Your task to perform on an android device: refresh tabs in the chrome app Image 0: 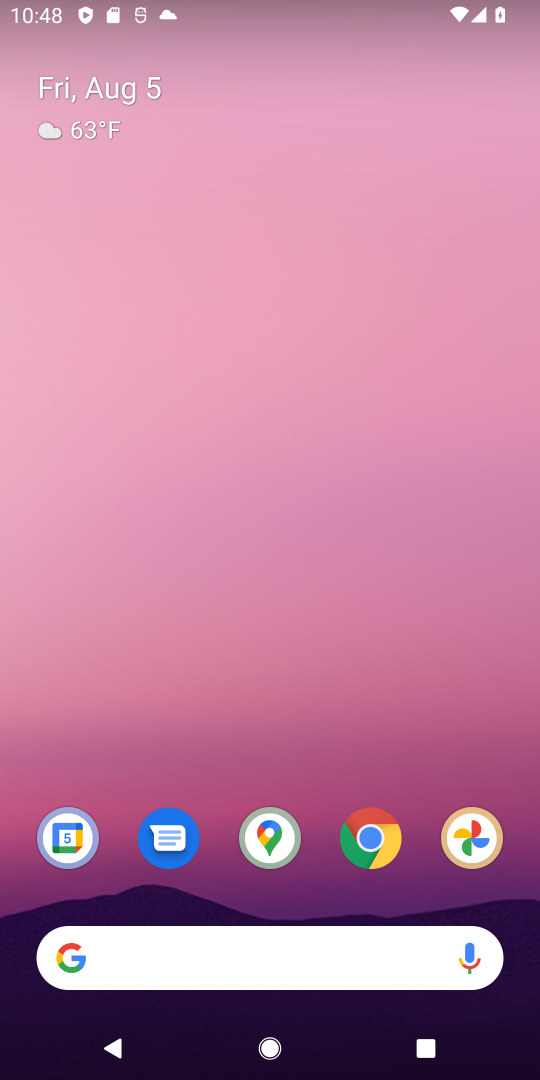
Step 0: drag from (271, 482) to (265, 184)
Your task to perform on an android device: refresh tabs in the chrome app Image 1: 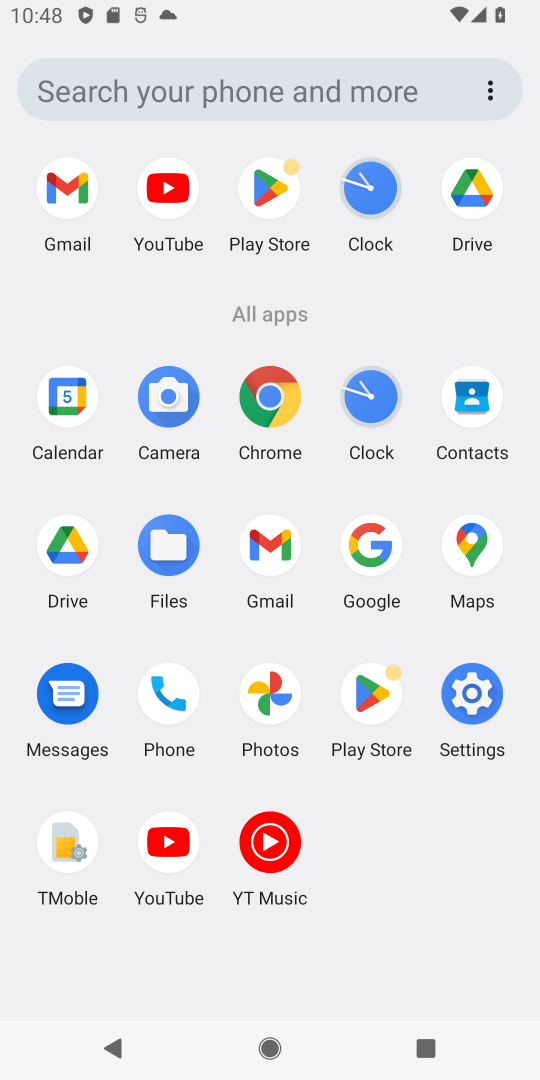
Step 1: click (269, 410)
Your task to perform on an android device: refresh tabs in the chrome app Image 2: 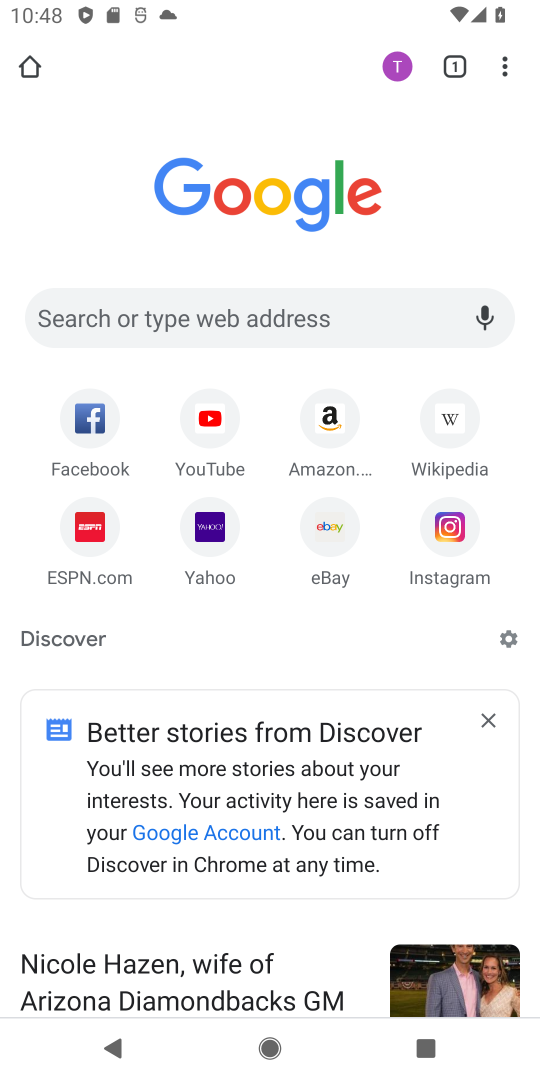
Step 2: click (494, 65)
Your task to perform on an android device: refresh tabs in the chrome app Image 3: 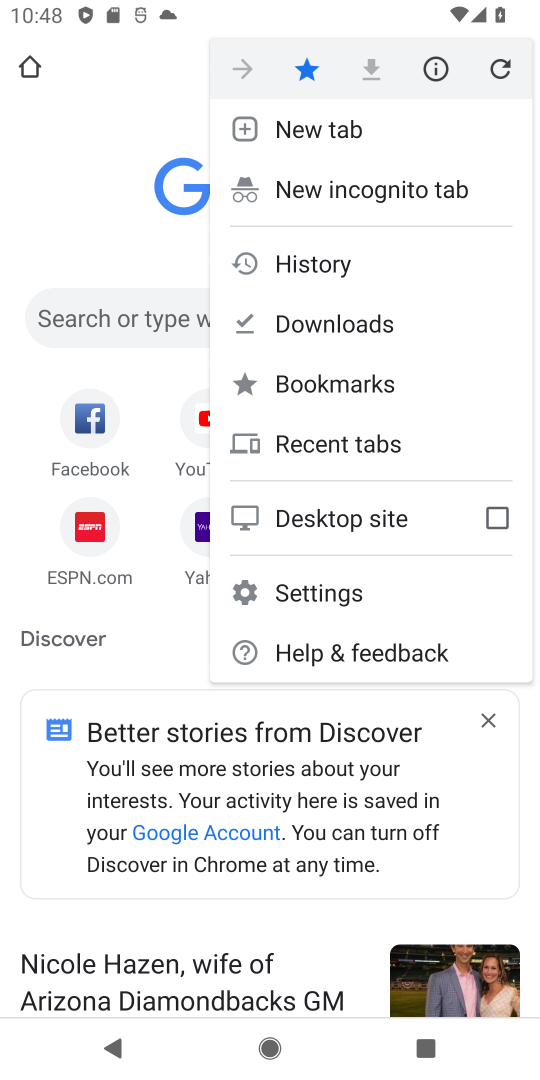
Step 3: click (491, 70)
Your task to perform on an android device: refresh tabs in the chrome app Image 4: 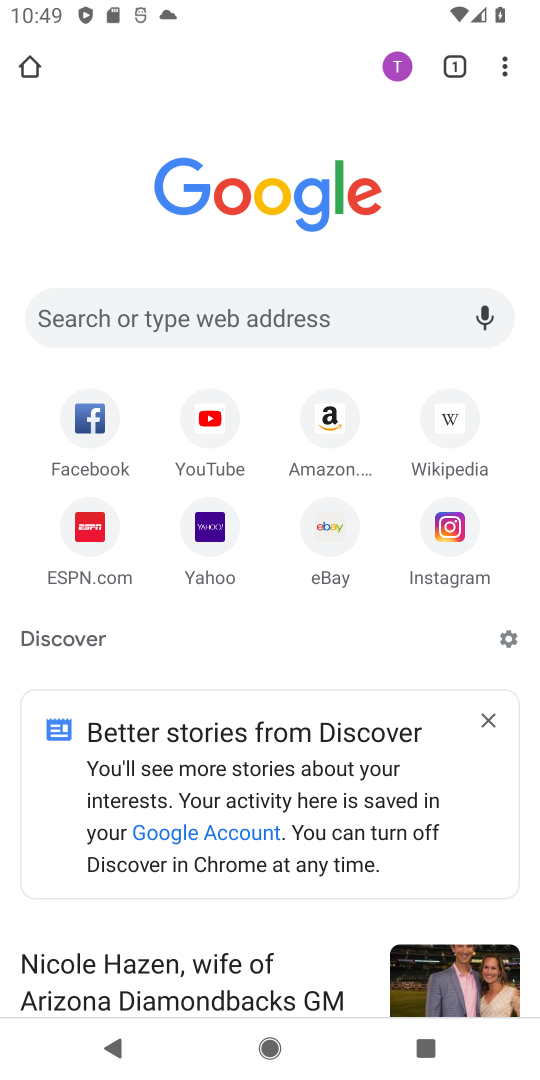
Step 4: click (504, 57)
Your task to perform on an android device: refresh tabs in the chrome app Image 5: 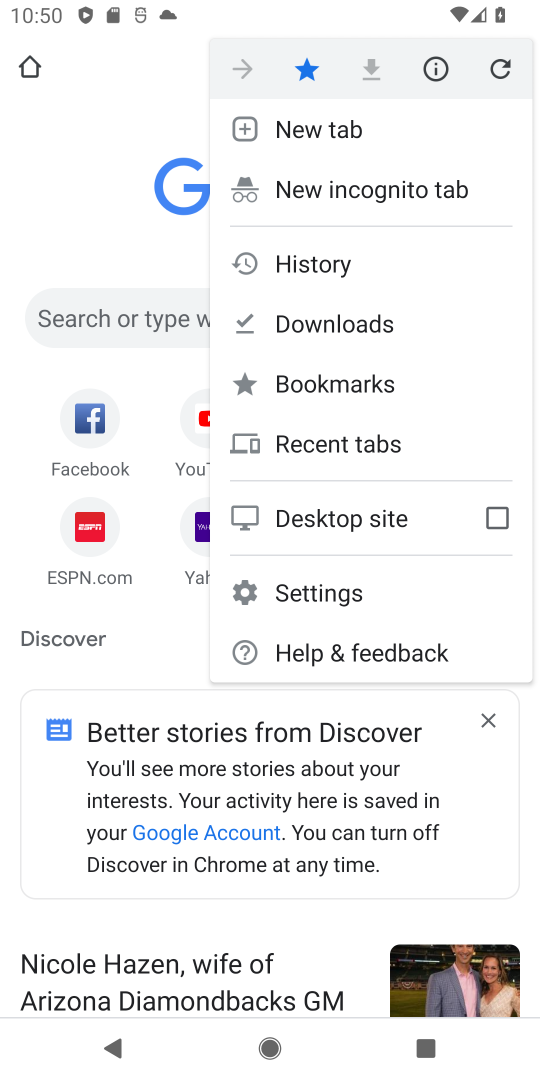
Step 5: click (495, 59)
Your task to perform on an android device: refresh tabs in the chrome app Image 6: 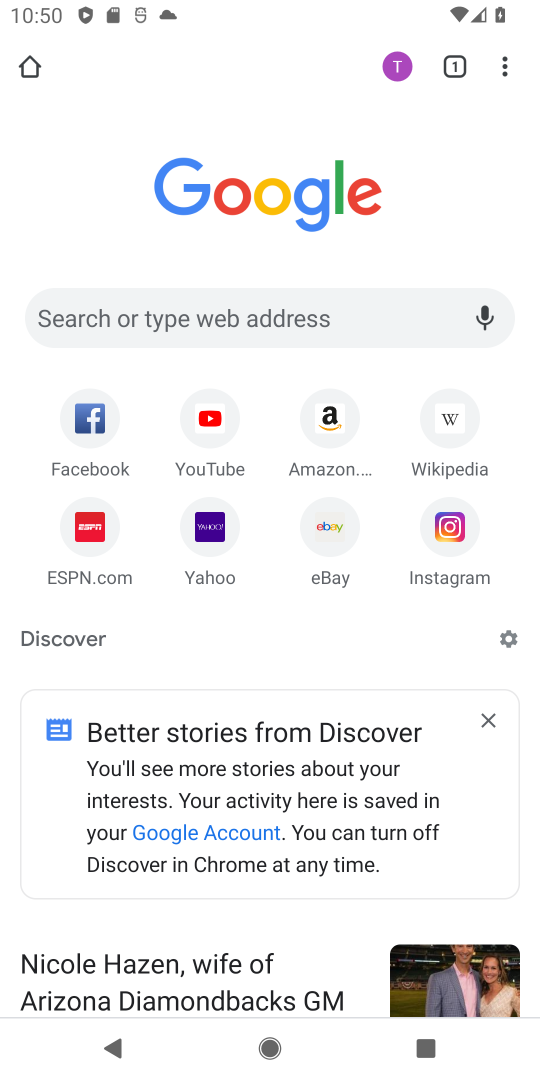
Step 6: task complete